Your task to perform on an android device: Go to display settings Image 0: 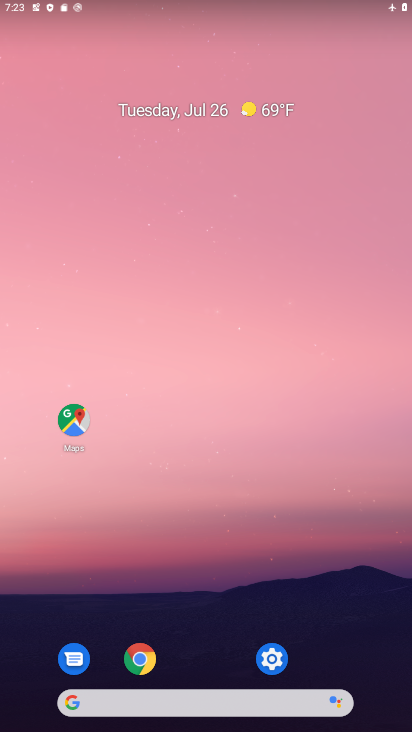
Step 0: click (289, 673)
Your task to perform on an android device: Go to display settings Image 1: 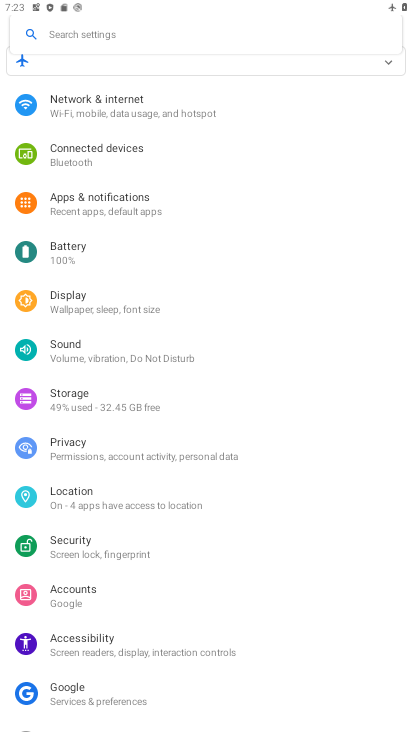
Step 1: click (83, 295)
Your task to perform on an android device: Go to display settings Image 2: 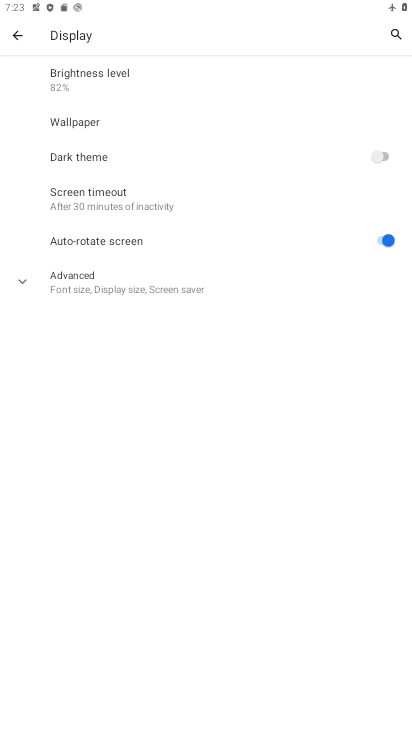
Step 2: task complete